Your task to perform on an android device: check android version Image 0: 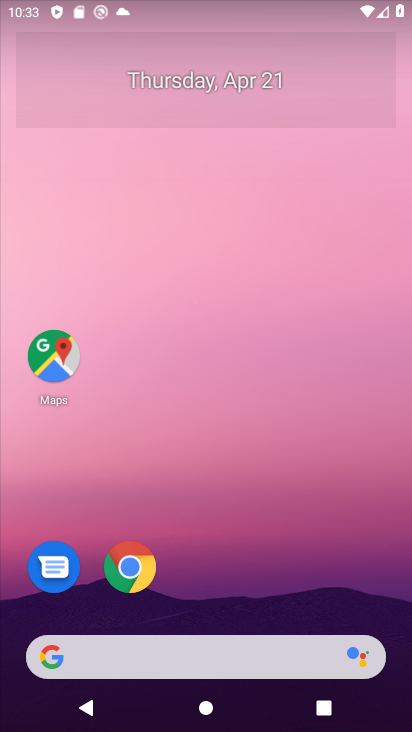
Step 0: drag from (248, 338) to (336, 102)
Your task to perform on an android device: check android version Image 1: 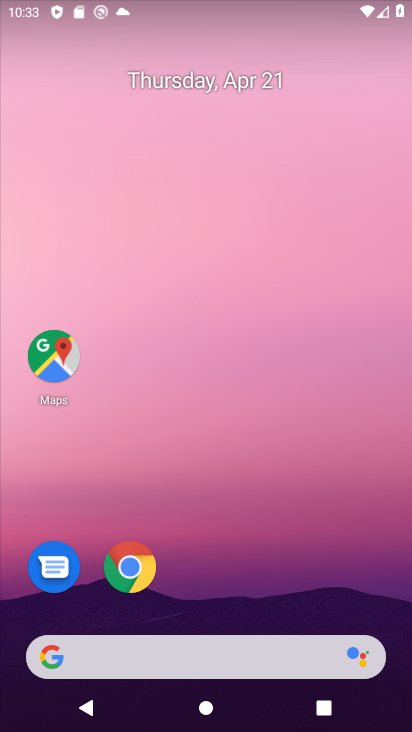
Step 1: drag from (217, 538) to (392, 223)
Your task to perform on an android device: check android version Image 2: 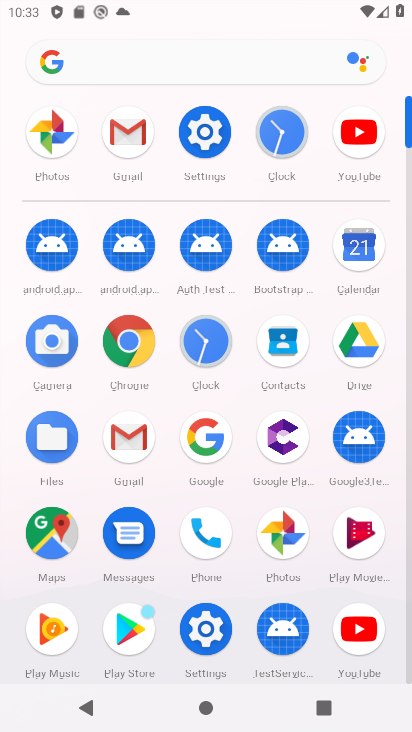
Step 2: drag from (198, 431) to (262, 15)
Your task to perform on an android device: check android version Image 3: 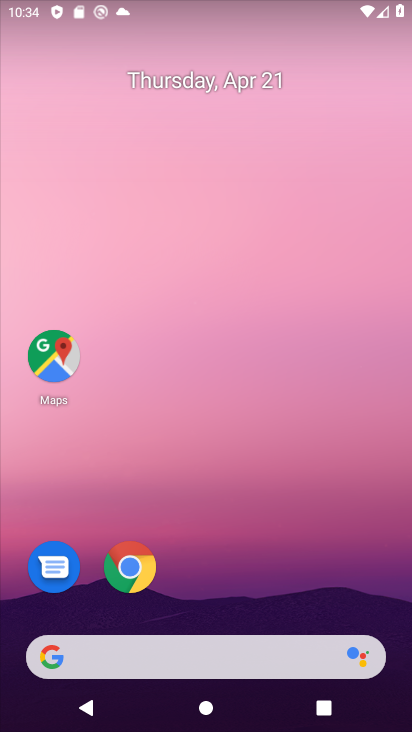
Step 3: click (187, 380)
Your task to perform on an android device: check android version Image 4: 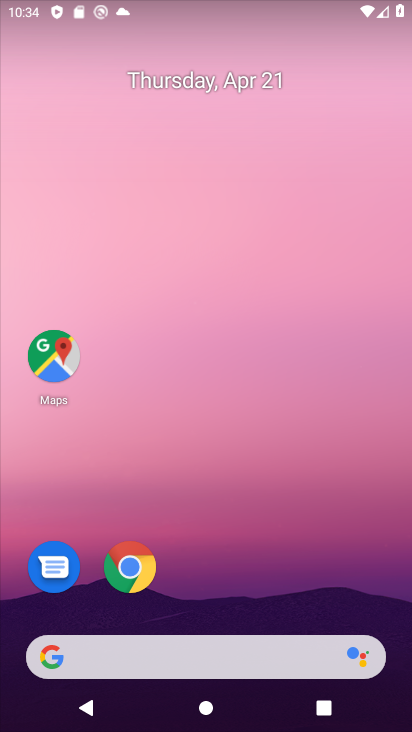
Step 4: drag from (212, 540) to (255, 154)
Your task to perform on an android device: check android version Image 5: 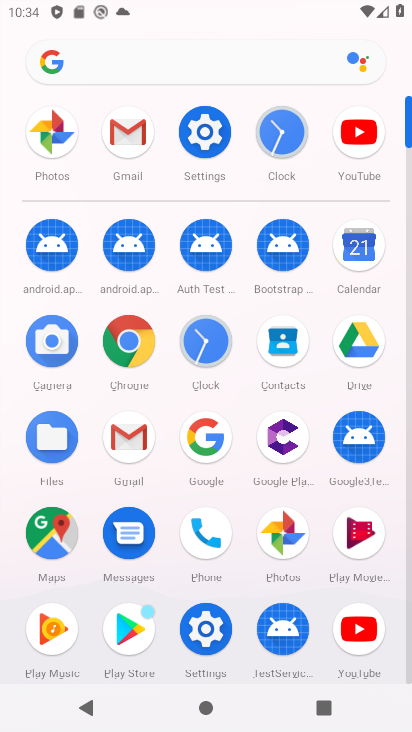
Step 5: click (202, 151)
Your task to perform on an android device: check android version Image 6: 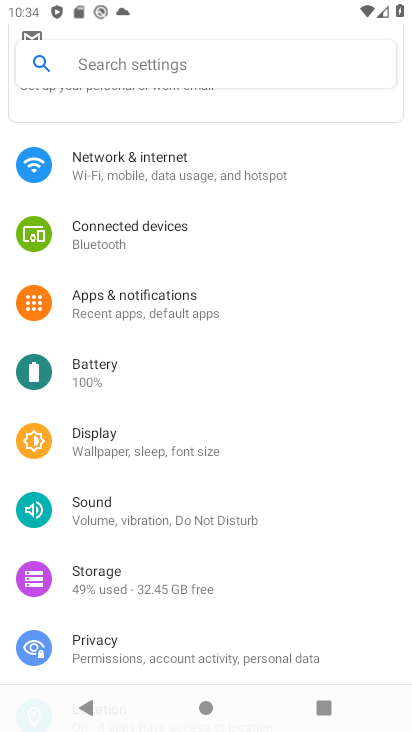
Step 6: drag from (150, 545) to (245, 39)
Your task to perform on an android device: check android version Image 7: 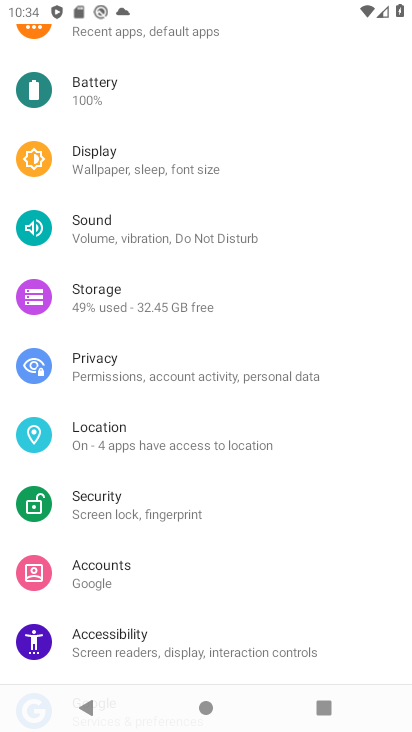
Step 7: drag from (136, 635) to (178, 256)
Your task to perform on an android device: check android version Image 8: 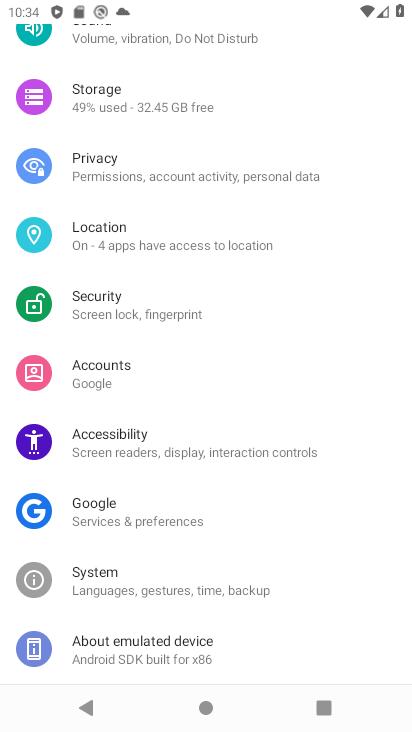
Step 8: drag from (144, 510) to (165, 257)
Your task to perform on an android device: check android version Image 9: 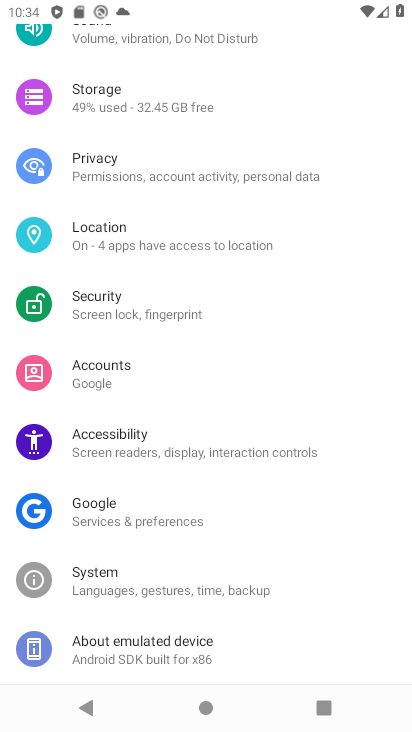
Step 9: click (128, 649)
Your task to perform on an android device: check android version Image 10: 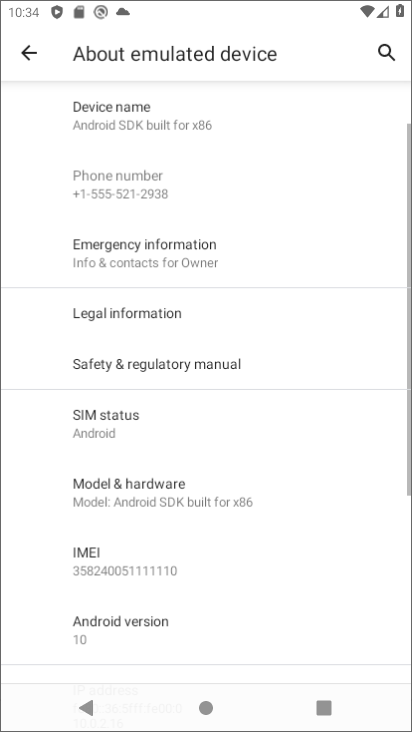
Step 10: click (140, 371)
Your task to perform on an android device: check android version Image 11: 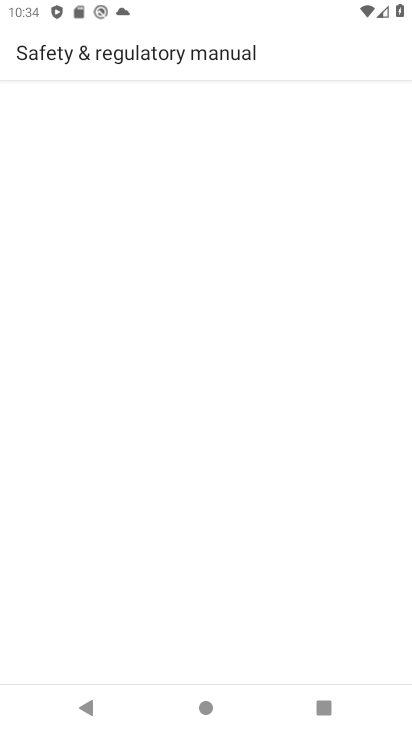
Step 11: click (159, 648)
Your task to perform on an android device: check android version Image 12: 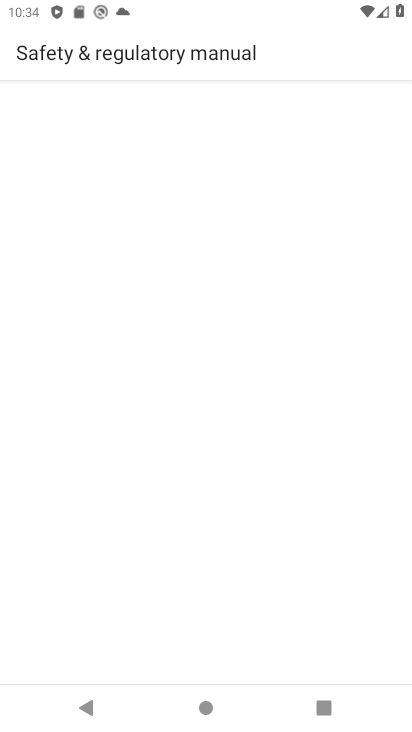
Step 12: press back button
Your task to perform on an android device: check android version Image 13: 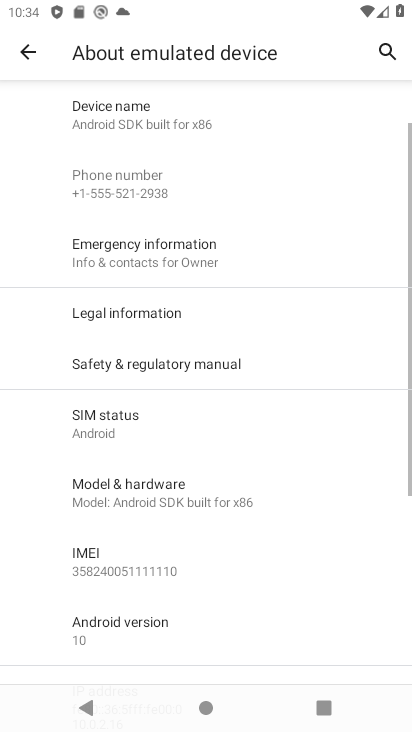
Step 13: click (151, 645)
Your task to perform on an android device: check android version Image 14: 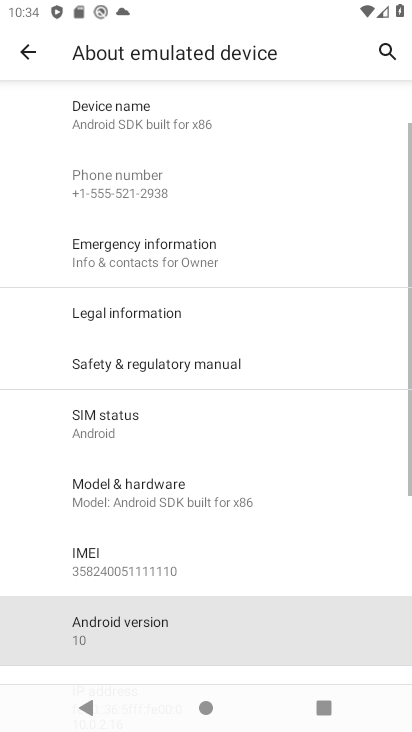
Step 14: click (133, 641)
Your task to perform on an android device: check android version Image 15: 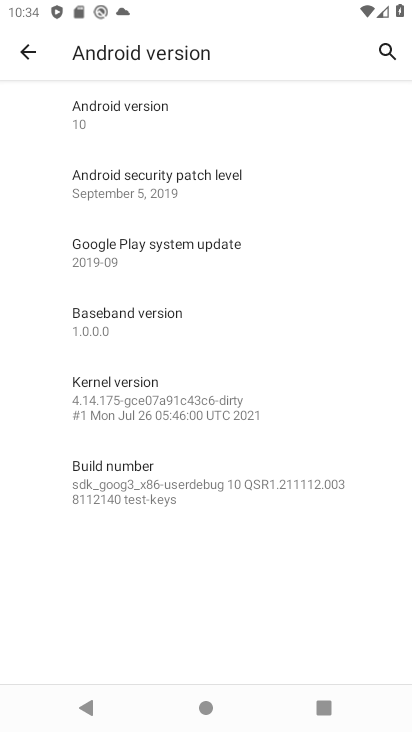
Step 15: task complete